Your task to perform on an android device: toggle sleep mode Image 0: 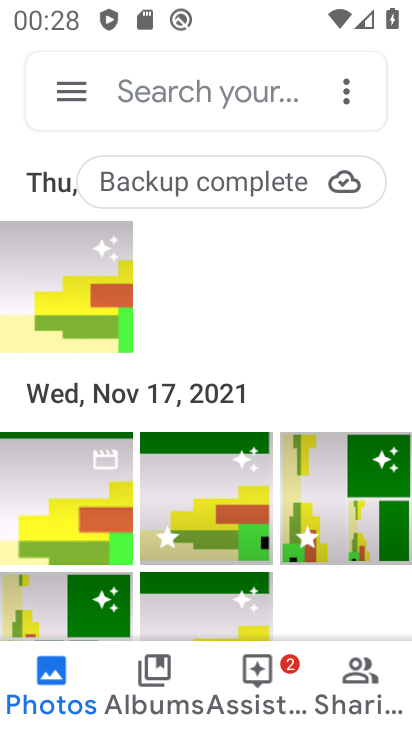
Step 0: drag from (295, 580) to (257, 441)
Your task to perform on an android device: toggle sleep mode Image 1: 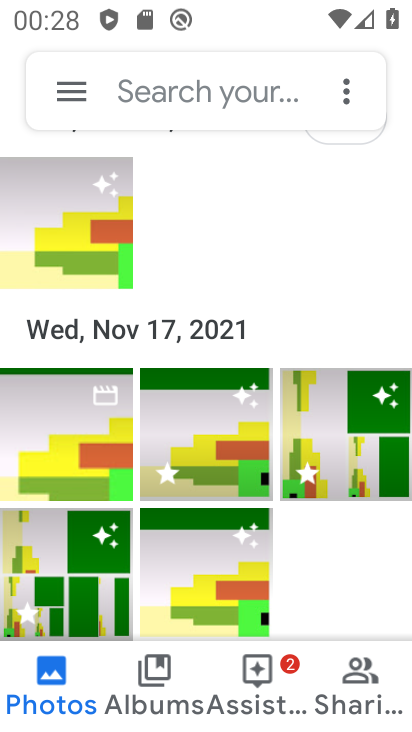
Step 1: task complete